Your task to perform on an android device: Search for sushi restaurants on Maps Image 0: 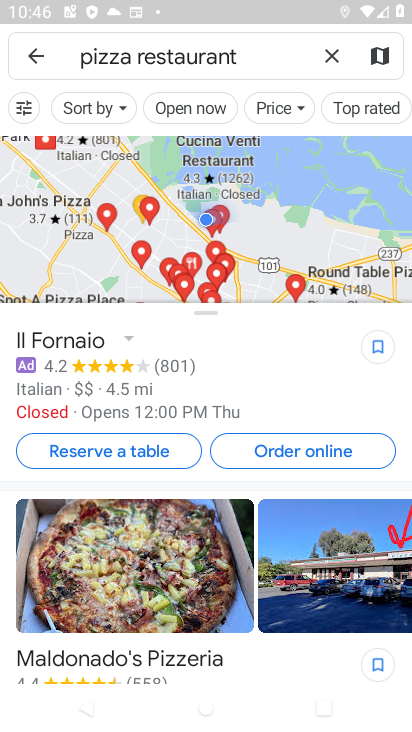
Step 0: click (330, 70)
Your task to perform on an android device: Search for sushi restaurants on Maps Image 1: 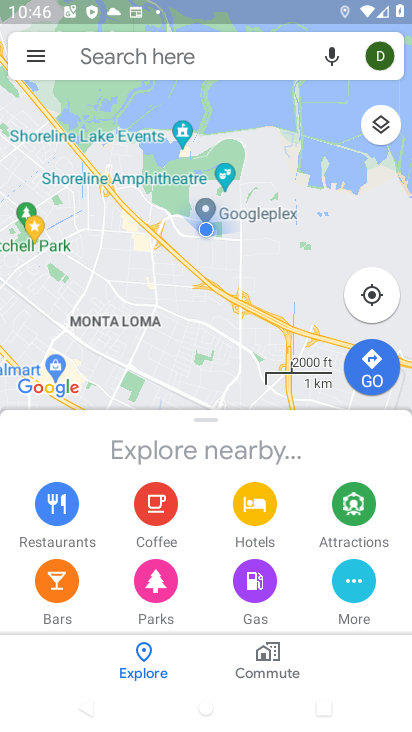
Step 1: click (243, 66)
Your task to perform on an android device: Search for sushi restaurants on Maps Image 2: 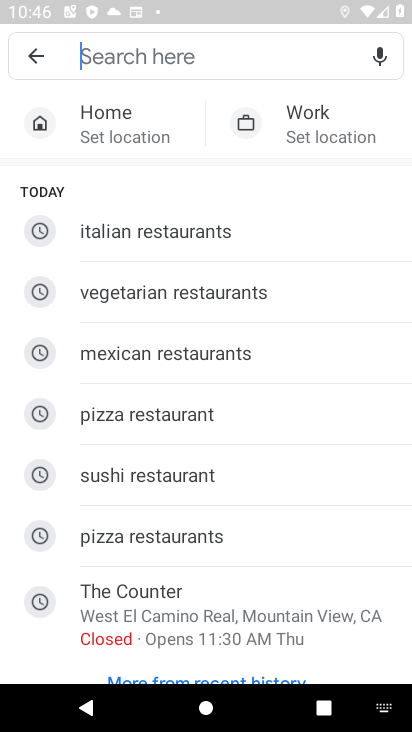
Step 2: click (173, 473)
Your task to perform on an android device: Search for sushi restaurants on Maps Image 3: 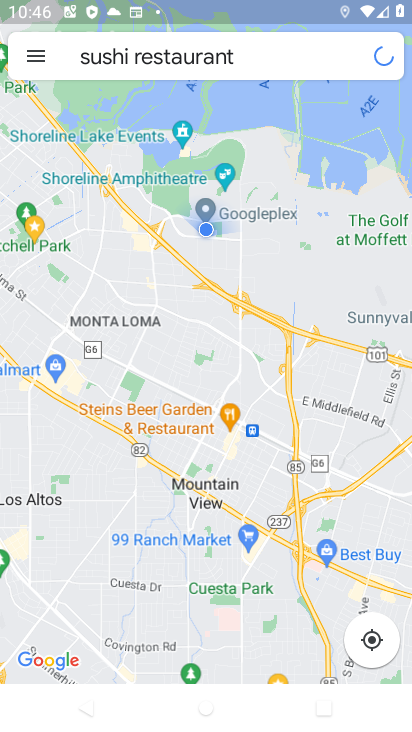
Step 3: task complete